Your task to perform on an android device: open chrome and create a bookmark for the current page Image 0: 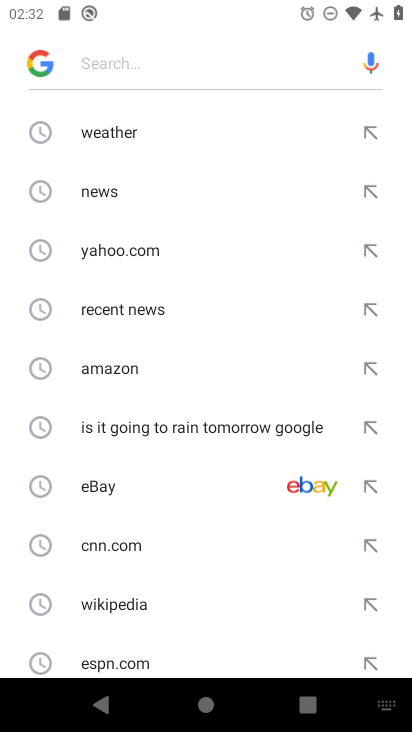
Step 0: press home button
Your task to perform on an android device: open chrome and create a bookmark for the current page Image 1: 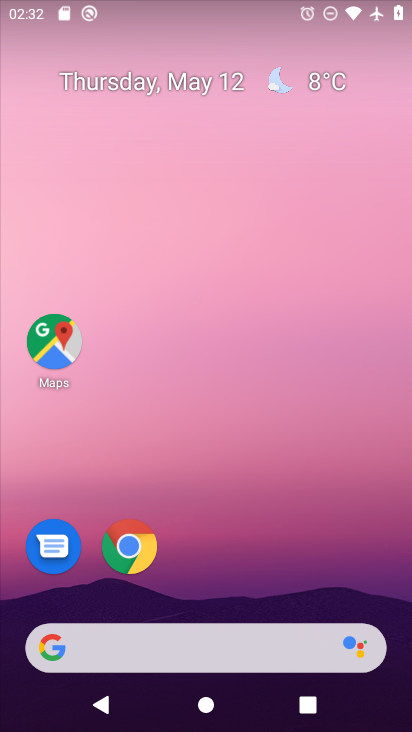
Step 1: click (130, 566)
Your task to perform on an android device: open chrome and create a bookmark for the current page Image 2: 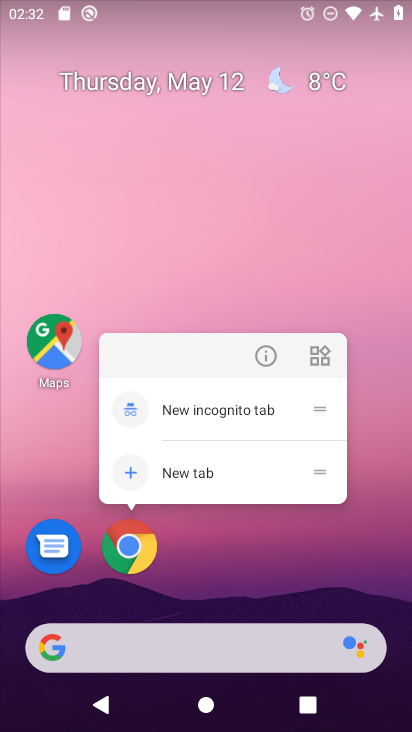
Step 2: click (134, 553)
Your task to perform on an android device: open chrome and create a bookmark for the current page Image 3: 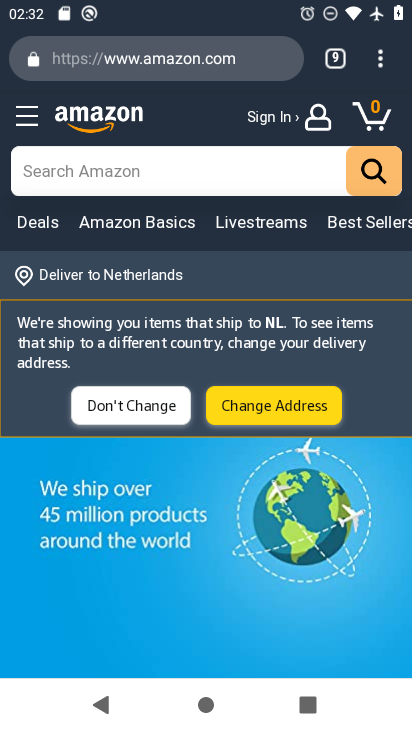
Step 3: click (378, 73)
Your task to perform on an android device: open chrome and create a bookmark for the current page Image 4: 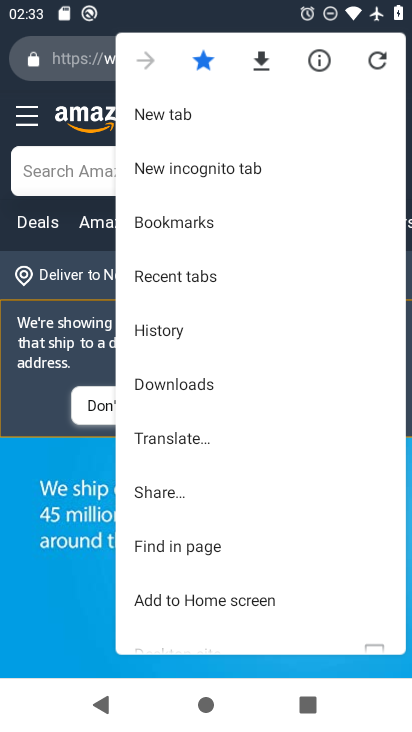
Step 4: task complete